Your task to perform on an android device: Search for Italian restaurants on Maps Image 0: 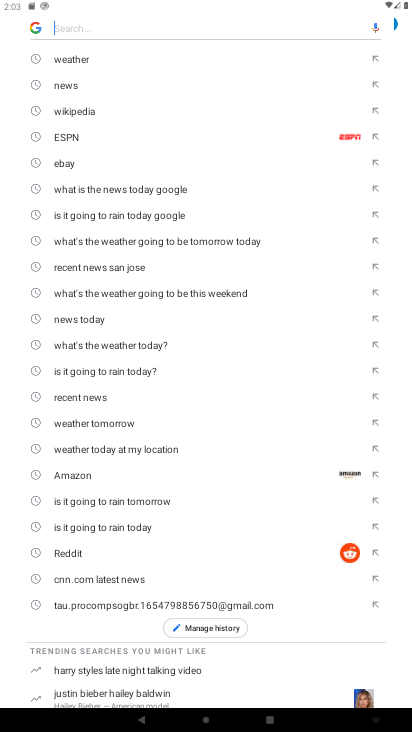
Step 0: press home button
Your task to perform on an android device: Search for Italian restaurants on Maps Image 1: 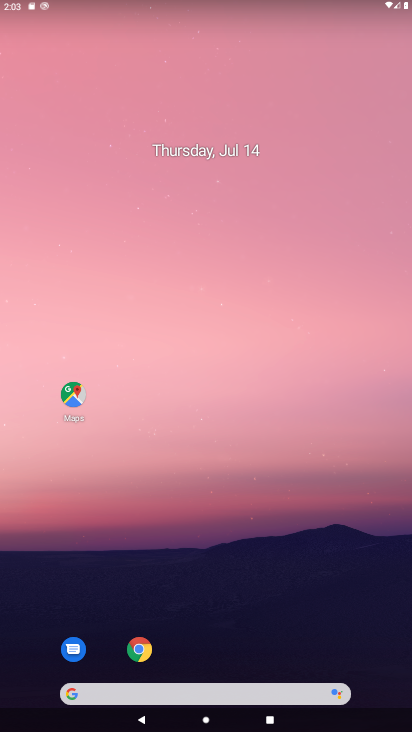
Step 1: drag from (294, 583) to (234, 87)
Your task to perform on an android device: Search for Italian restaurants on Maps Image 2: 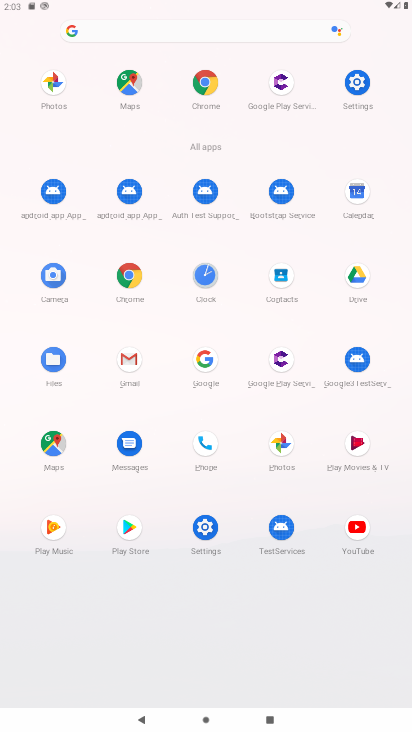
Step 2: click (216, 82)
Your task to perform on an android device: Search for Italian restaurants on Maps Image 3: 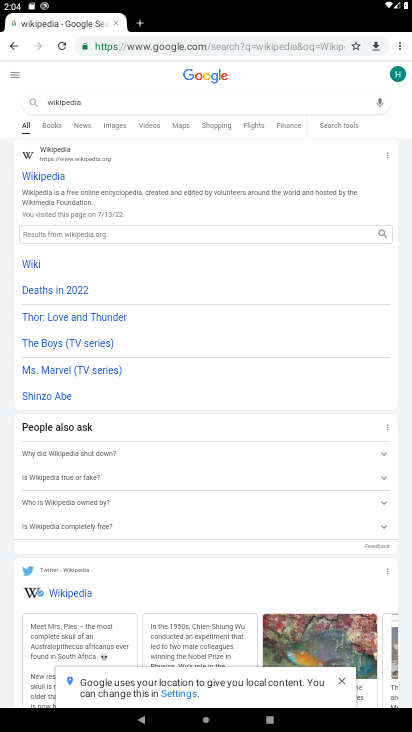
Step 3: click (207, 50)
Your task to perform on an android device: Search for Italian restaurants on Maps Image 4: 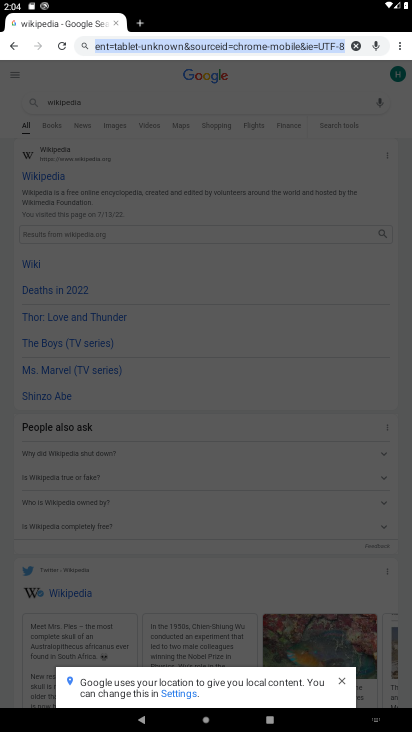
Step 4: press home button
Your task to perform on an android device: Search for Italian restaurants on Maps Image 5: 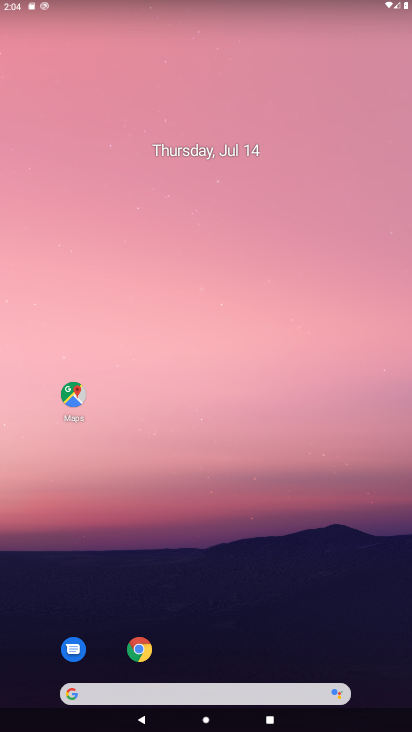
Step 5: click (67, 389)
Your task to perform on an android device: Search for Italian restaurants on Maps Image 6: 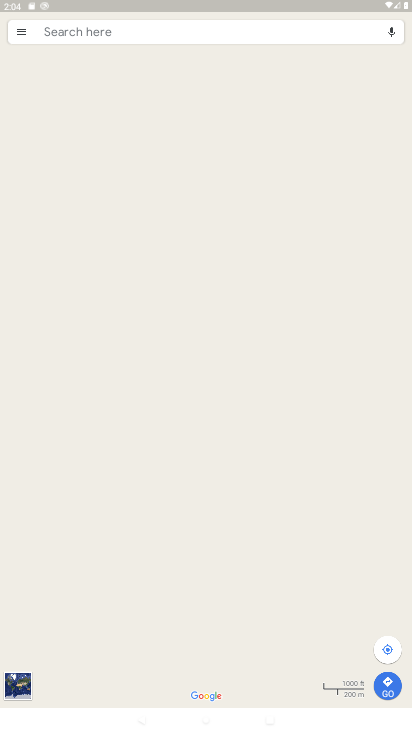
Step 6: click (158, 39)
Your task to perform on an android device: Search for Italian restaurants on Maps Image 7: 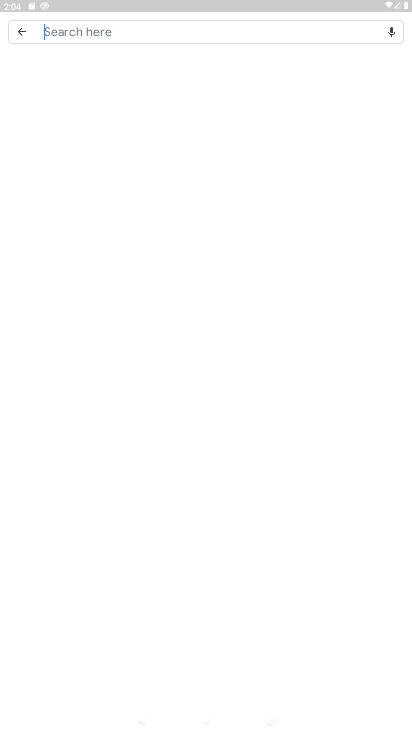
Step 7: click (163, 33)
Your task to perform on an android device: Search for Italian restaurants on Maps Image 8: 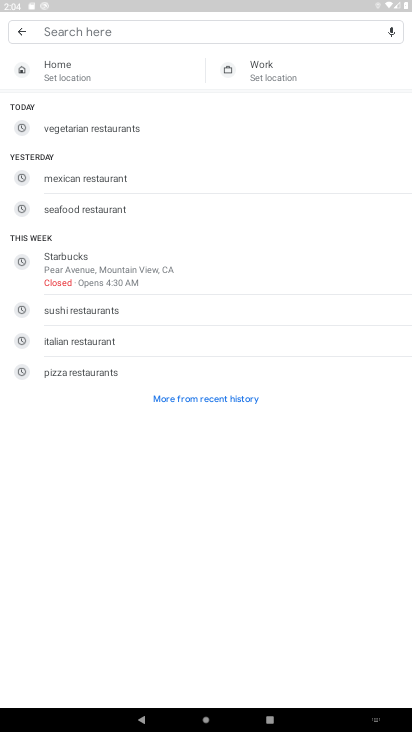
Step 8: type " Italian restaurants"
Your task to perform on an android device: Search for Italian restaurants on Maps Image 9: 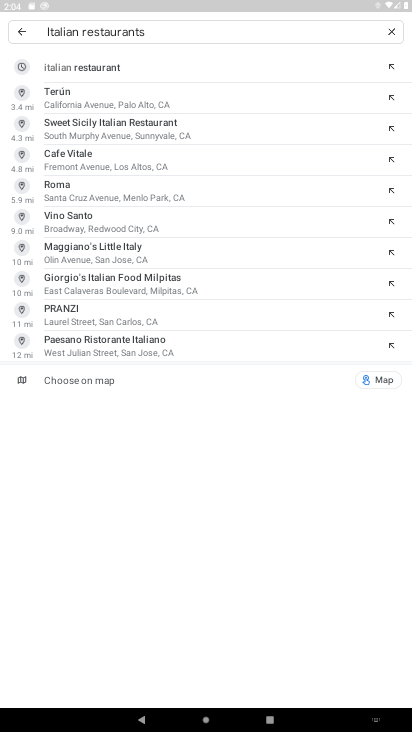
Step 9: click (144, 71)
Your task to perform on an android device: Search for Italian restaurants on Maps Image 10: 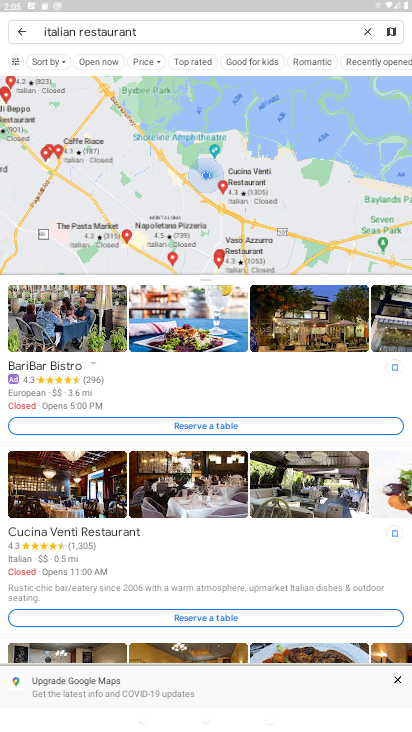
Step 10: task complete